Your task to perform on an android device: turn off location history Image 0: 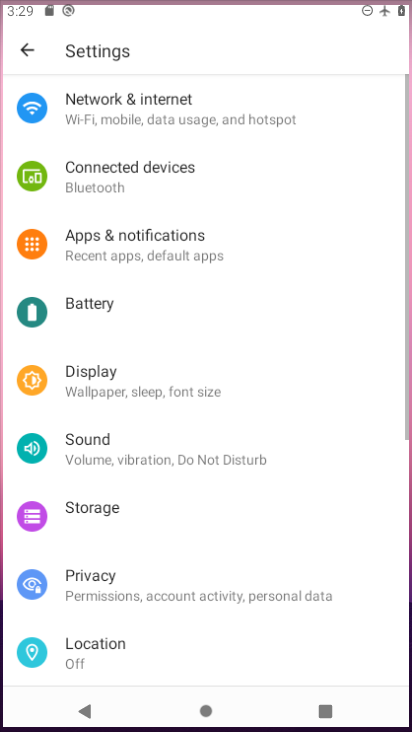
Step 0: drag from (218, 634) to (195, 187)
Your task to perform on an android device: turn off location history Image 1: 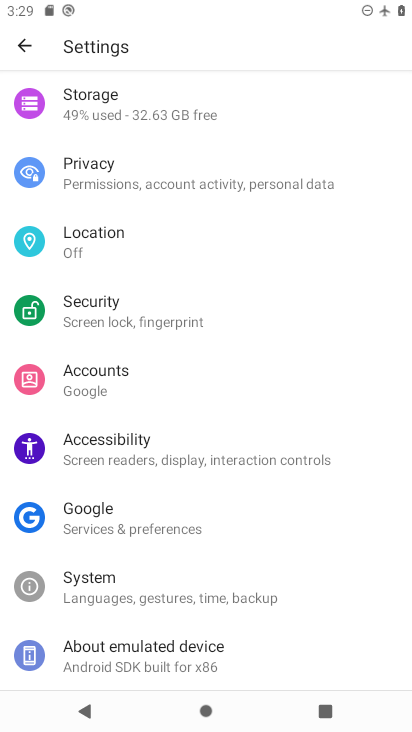
Step 1: click (101, 241)
Your task to perform on an android device: turn off location history Image 2: 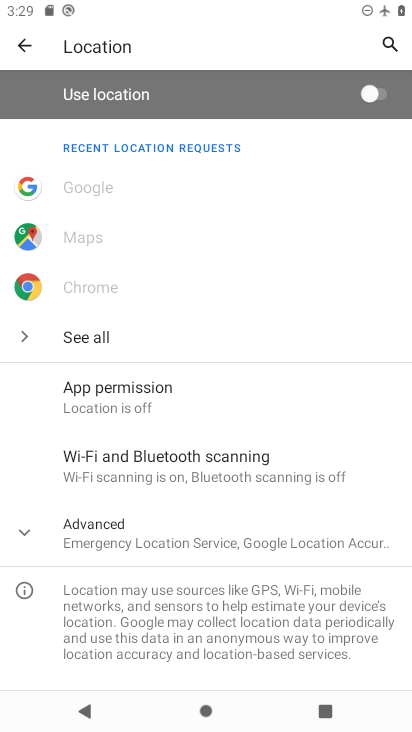
Step 2: click (147, 507)
Your task to perform on an android device: turn off location history Image 3: 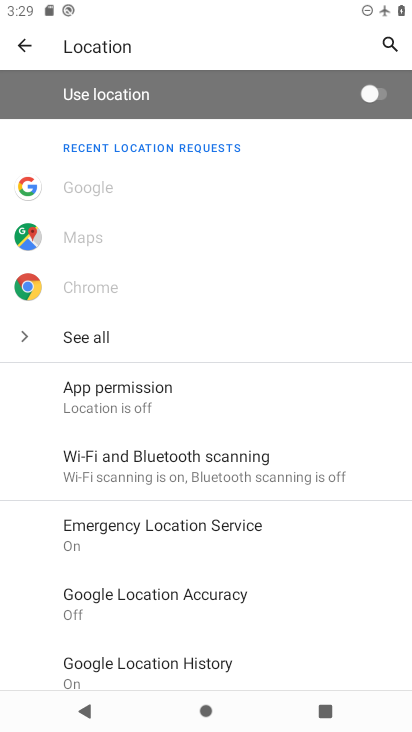
Step 3: click (185, 657)
Your task to perform on an android device: turn off location history Image 4: 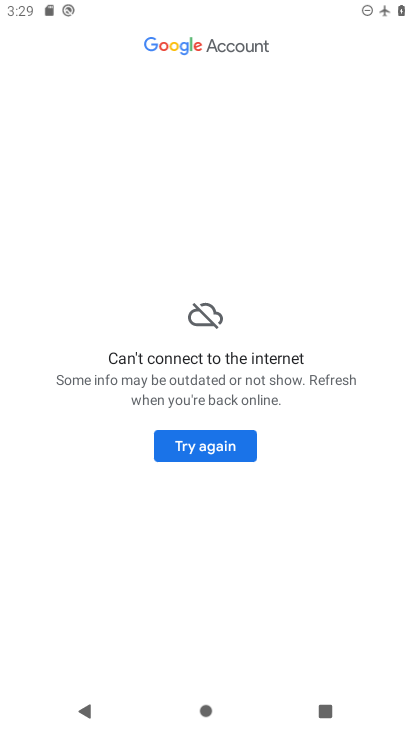
Step 4: task complete